Your task to perform on an android device: What's the latest video from GameTrailers? Image 0: 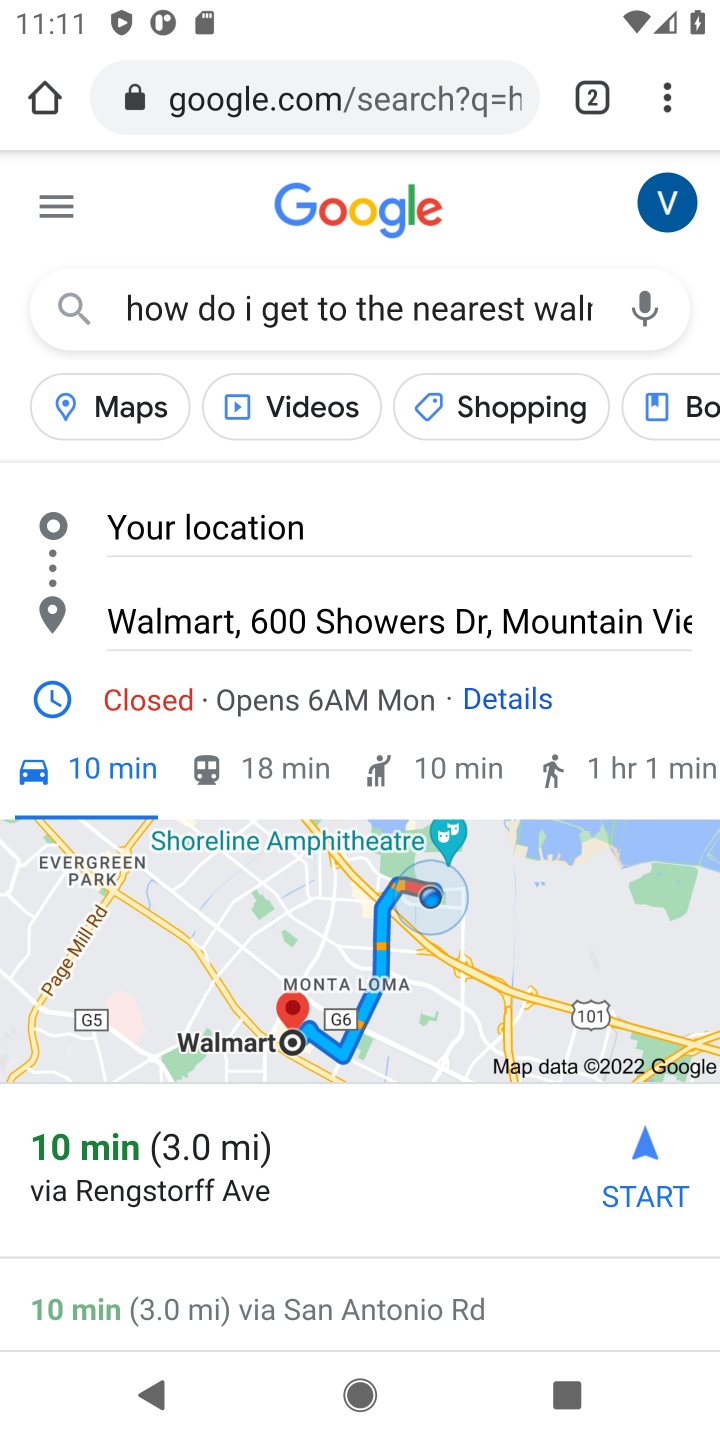
Step 0: drag from (483, 1077) to (360, 466)
Your task to perform on an android device: What's the latest video from GameTrailers? Image 1: 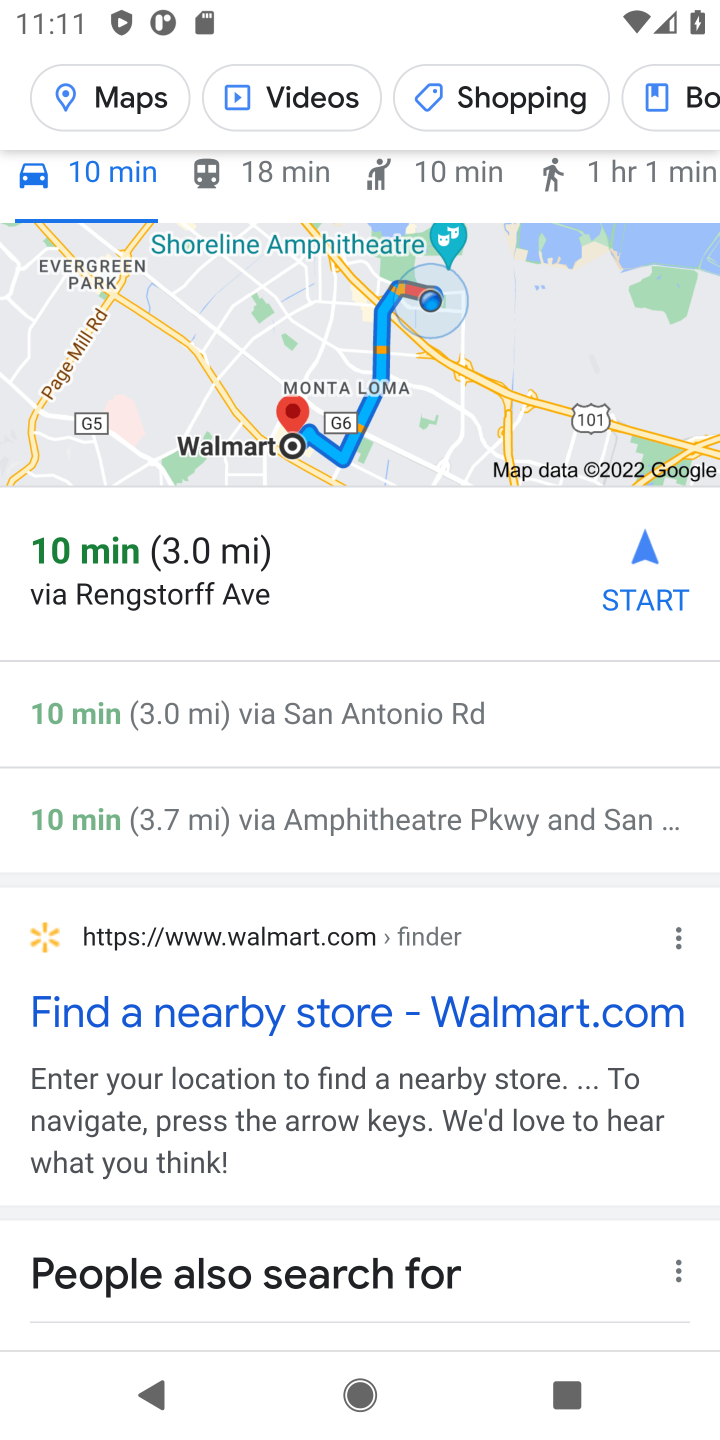
Step 1: task complete